Your task to perform on an android device: Open CNN.com Image 0: 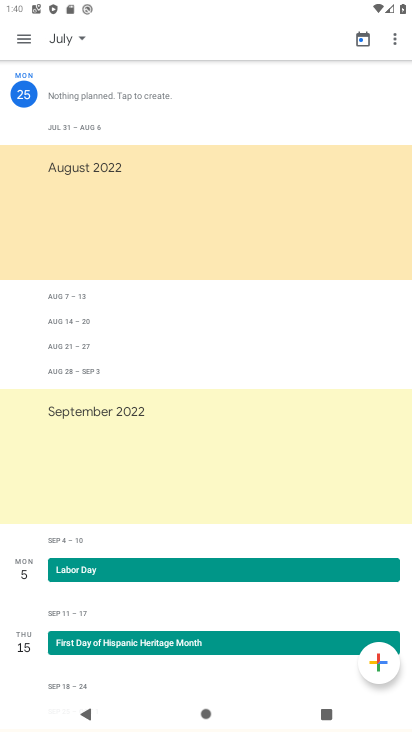
Step 0: press home button
Your task to perform on an android device: Open CNN.com Image 1: 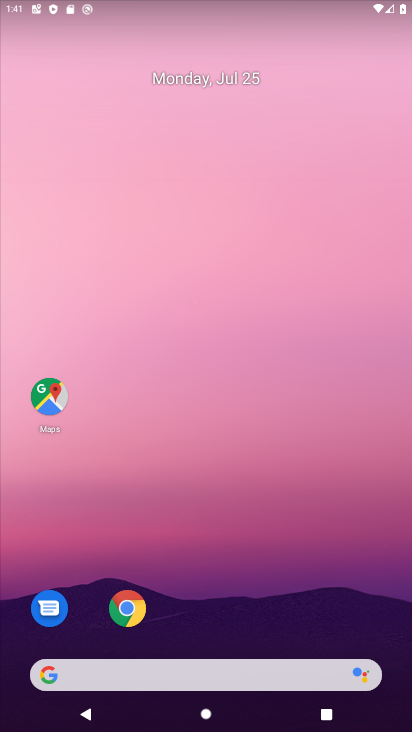
Step 1: click (139, 681)
Your task to perform on an android device: Open CNN.com Image 2: 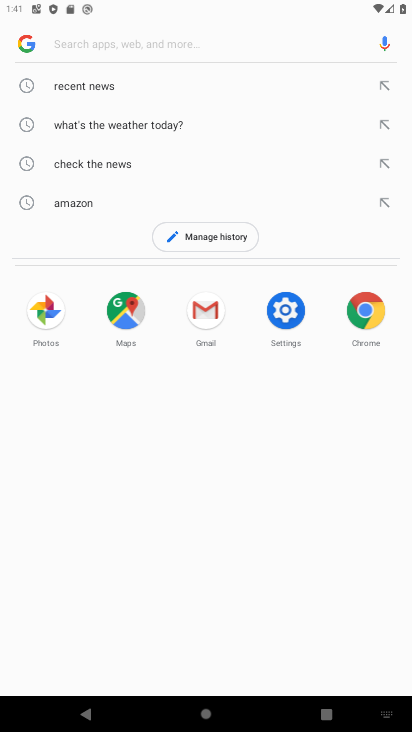
Step 2: type "CNN.com"
Your task to perform on an android device: Open CNN.com Image 3: 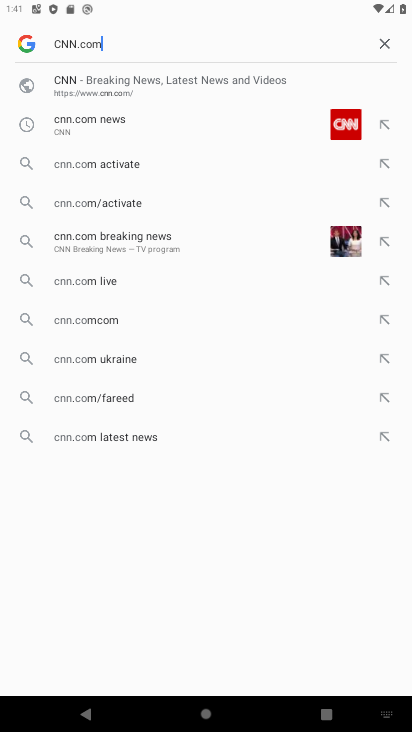
Step 3: press enter
Your task to perform on an android device: Open CNN.com Image 4: 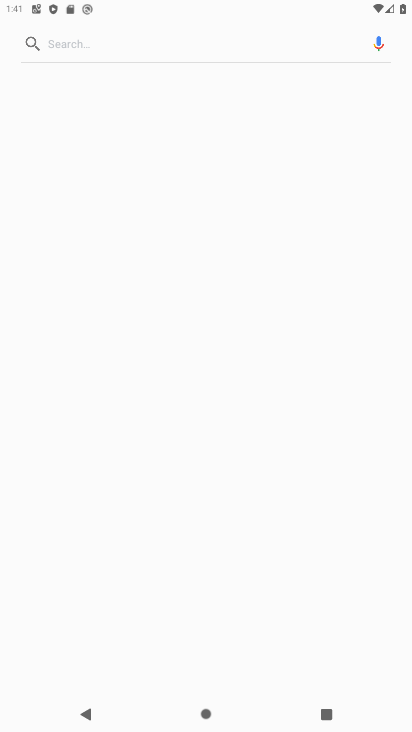
Step 4: task complete